Your task to perform on an android device: Show me popular videos on Youtube Image 0: 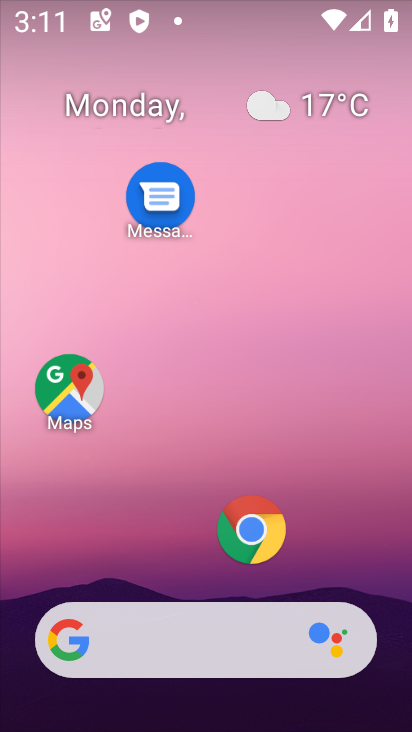
Step 0: drag from (193, 582) to (264, 80)
Your task to perform on an android device: Show me popular videos on Youtube Image 1: 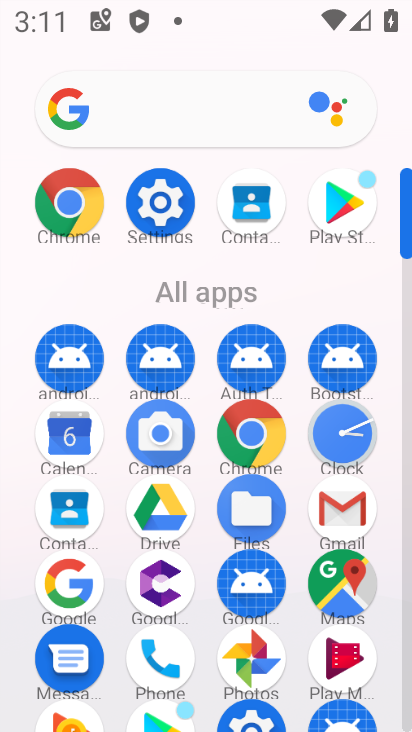
Step 1: drag from (201, 611) to (194, 176)
Your task to perform on an android device: Show me popular videos on Youtube Image 2: 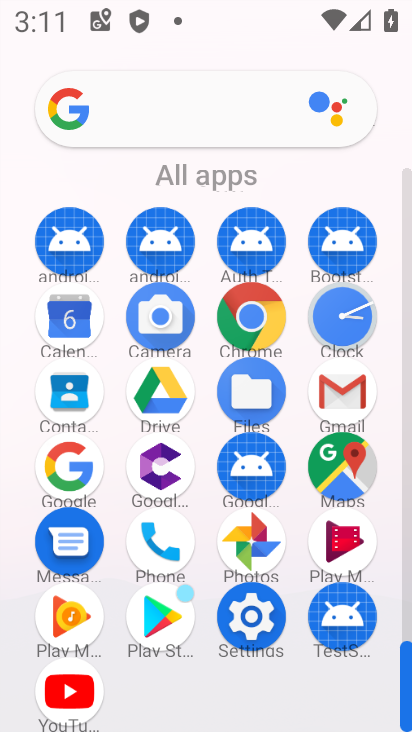
Step 2: click (65, 682)
Your task to perform on an android device: Show me popular videos on Youtube Image 3: 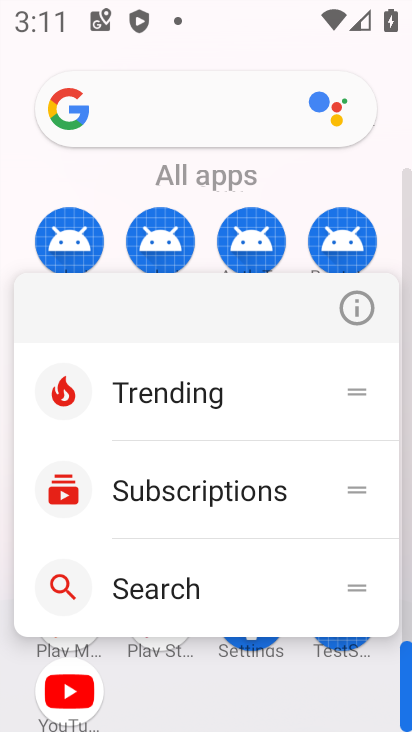
Step 3: click (65, 682)
Your task to perform on an android device: Show me popular videos on Youtube Image 4: 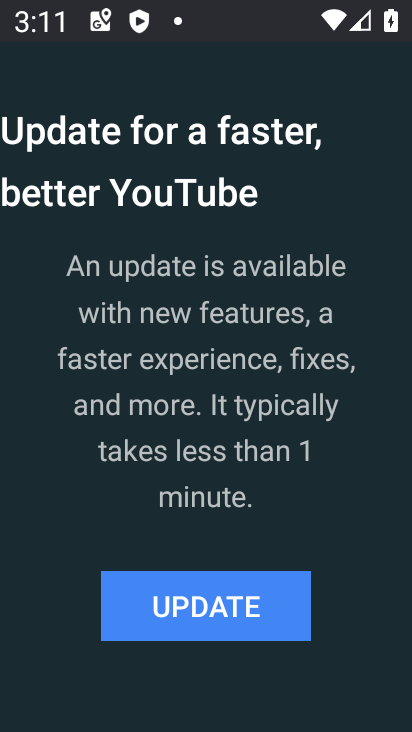
Step 4: click (206, 597)
Your task to perform on an android device: Show me popular videos on Youtube Image 5: 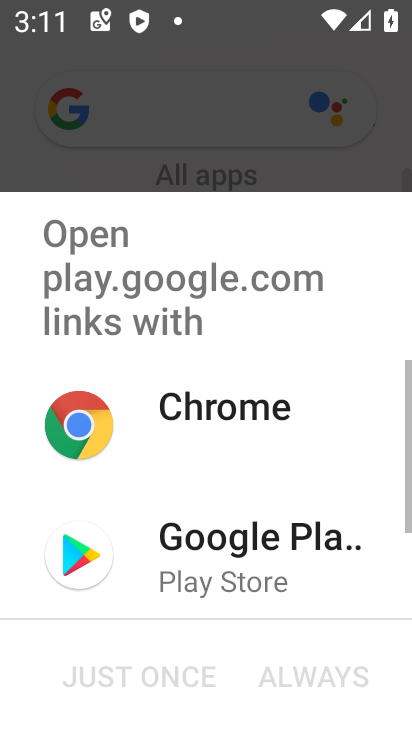
Step 5: click (123, 553)
Your task to perform on an android device: Show me popular videos on Youtube Image 6: 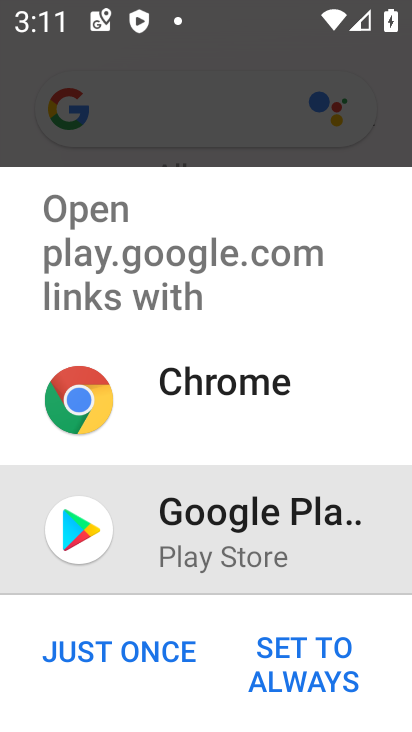
Step 6: click (117, 648)
Your task to perform on an android device: Show me popular videos on Youtube Image 7: 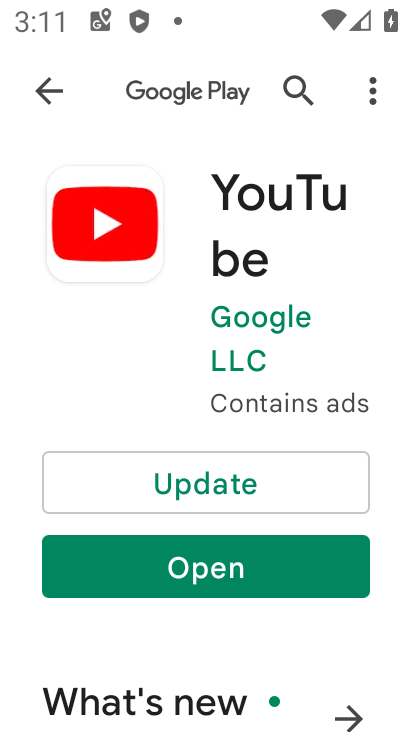
Step 7: click (216, 478)
Your task to perform on an android device: Show me popular videos on Youtube Image 8: 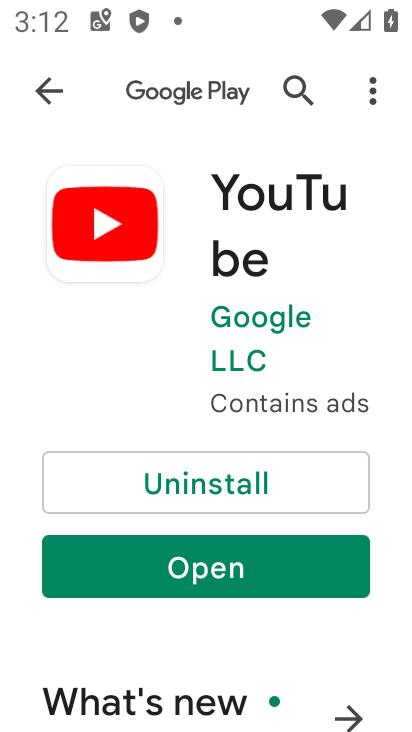
Step 8: click (207, 569)
Your task to perform on an android device: Show me popular videos on Youtube Image 9: 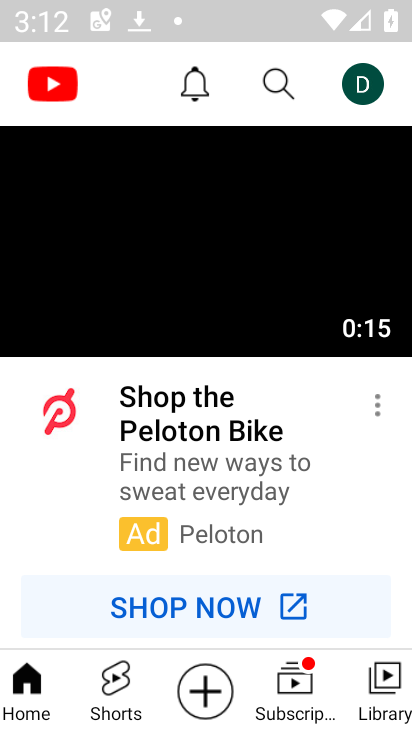
Step 9: click (379, 671)
Your task to perform on an android device: Show me popular videos on Youtube Image 10: 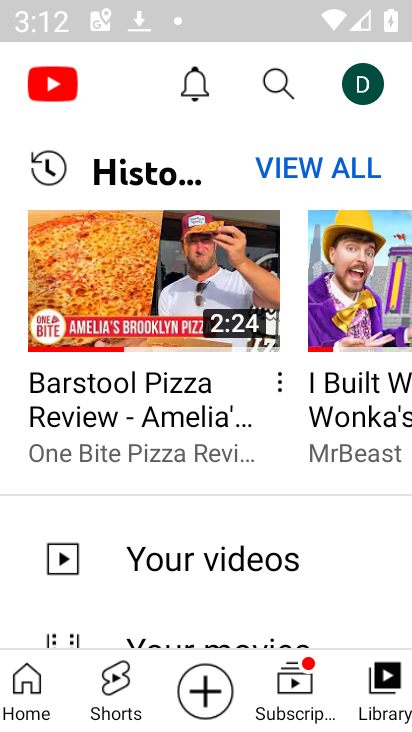
Step 10: click (30, 677)
Your task to perform on an android device: Show me popular videos on Youtube Image 11: 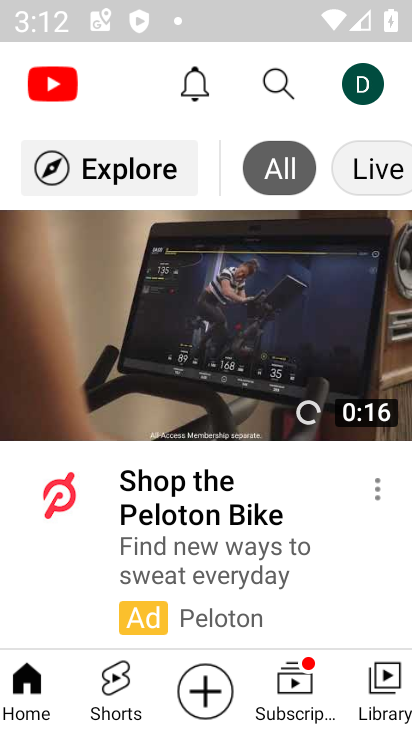
Step 11: click (100, 154)
Your task to perform on an android device: Show me popular videos on Youtube Image 12: 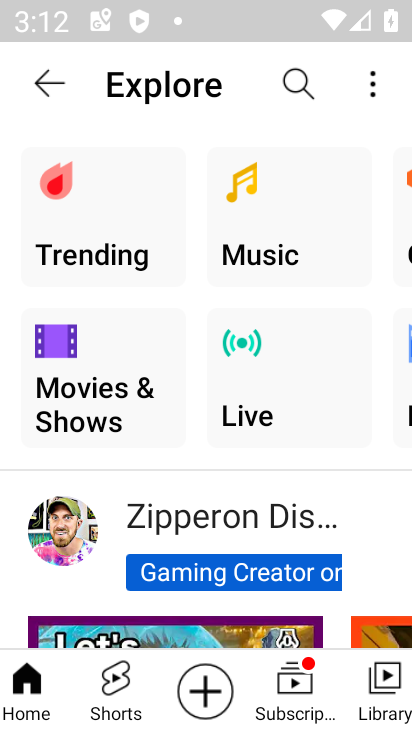
Step 12: click (96, 203)
Your task to perform on an android device: Show me popular videos on Youtube Image 13: 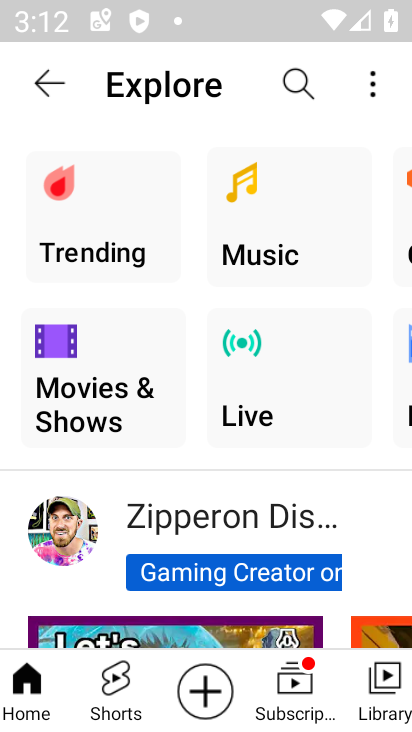
Step 13: click (96, 203)
Your task to perform on an android device: Show me popular videos on Youtube Image 14: 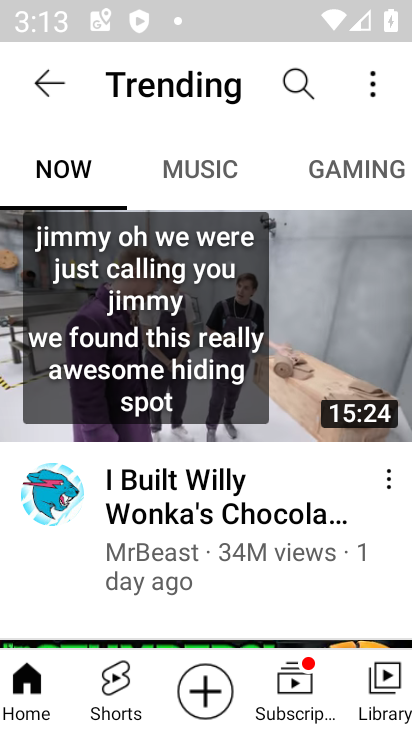
Step 14: task complete